Your task to perform on an android device: open app "LinkedIn" (install if not already installed) and enter user name: "dirt@inbox.com" and password: "receptionist" Image 0: 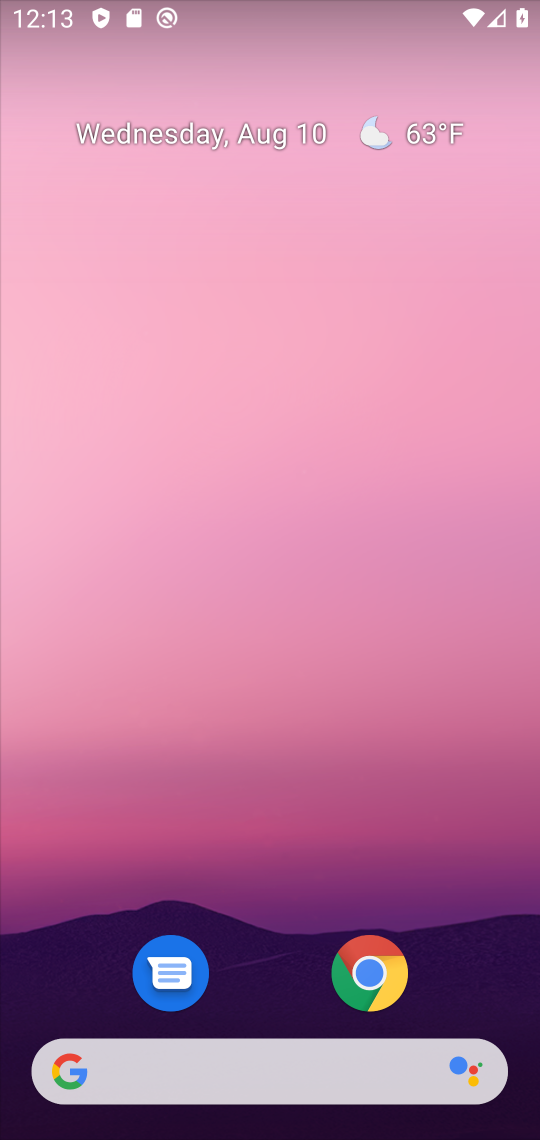
Step 0: drag from (291, 750) to (400, 34)
Your task to perform on an android device: open app "LinkedIn" (install if not already installed) and enter user name: "dirt@inbox.com" and password: "receptionist" Image 1: 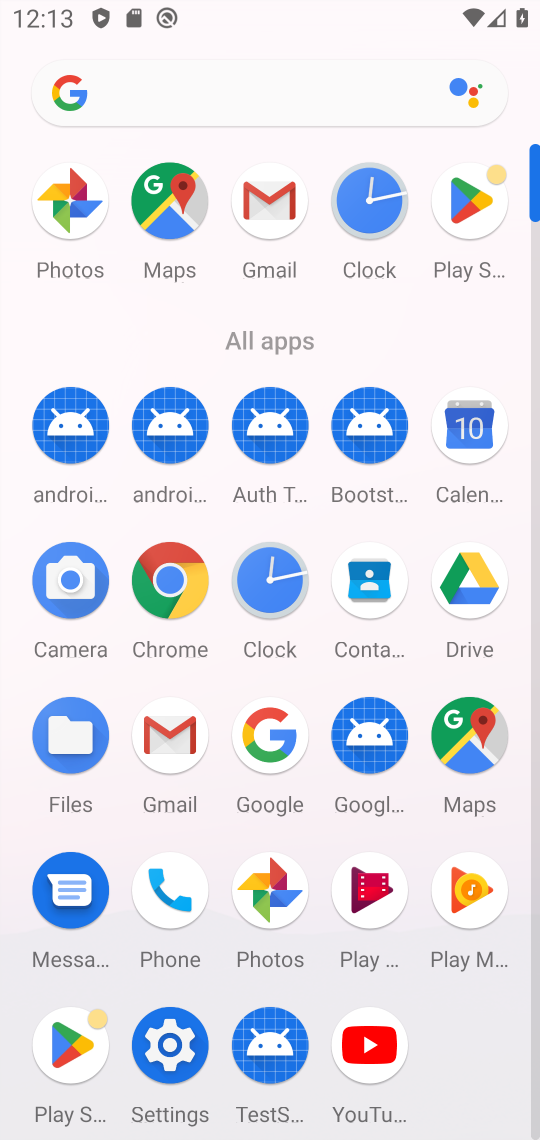
Step 1: click (484, 203)
Your task to perform on an android device: open app "LinkedIn" (install if not already installed) and enter user name: "dirt@inbox.com" and password: "receptionist" Image 2: 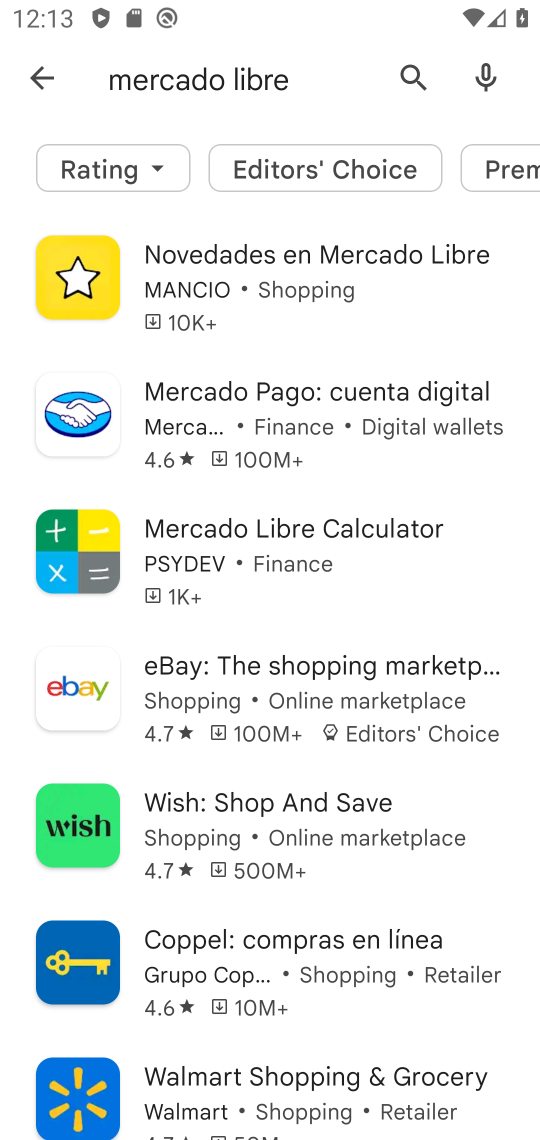
Step 2: click (409, 67)
Your task to perform on an android device: open app "LinkedIn" (install if not already installed) and enter user name: "dirt@inbox.com" and password: "receptionist" Image 3: 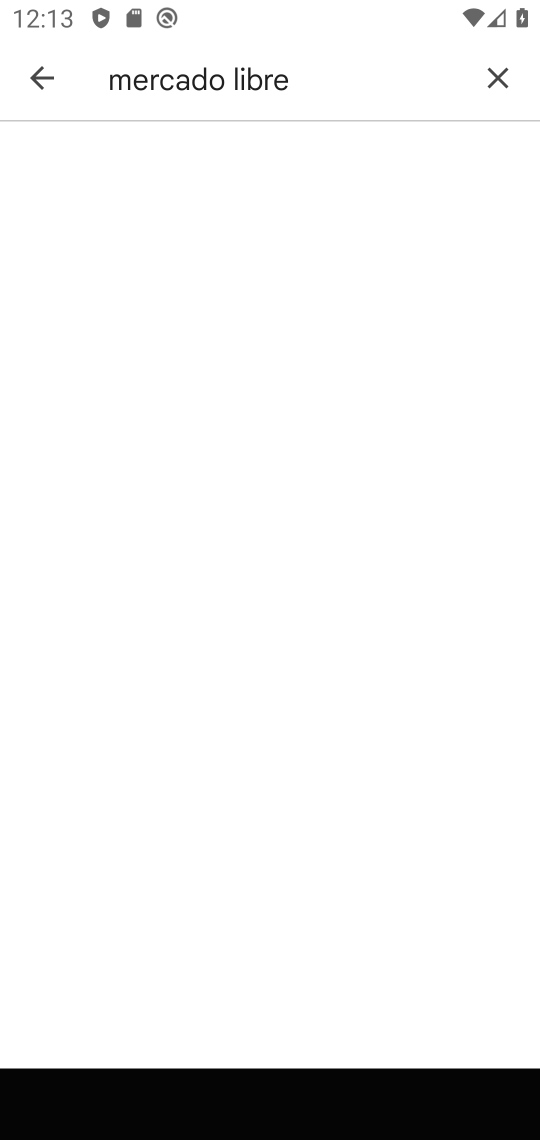
Step 3: click (495, 60)
Your task to perform on an android device: open app "LinkedIn" (install if not already installed) and enter user name: "dirt@inbox.com" and password: "receptionist" Image 4: 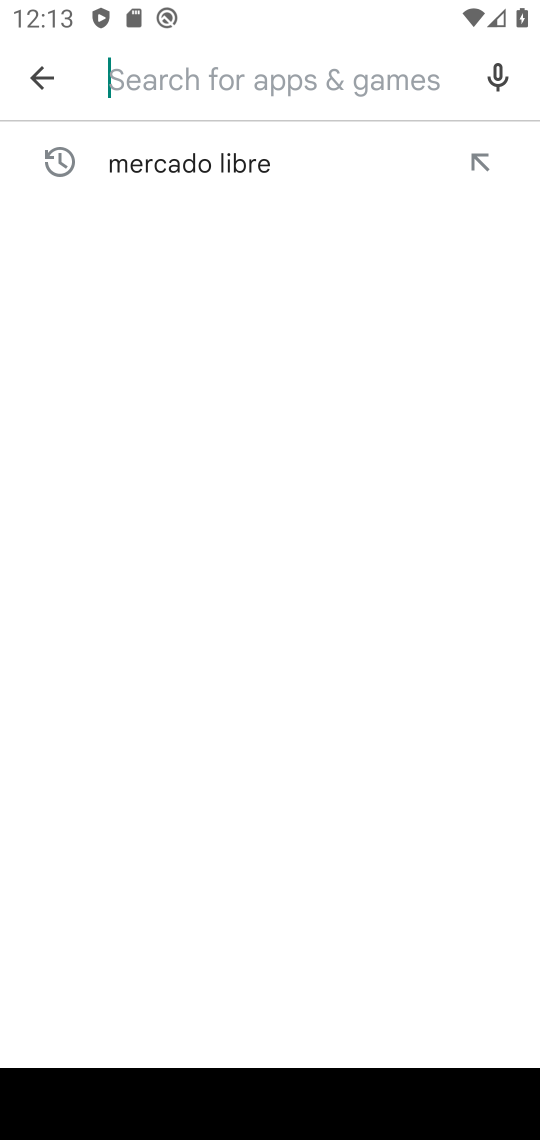
Step 4: click (205, 88)
Your task to perform on an android device: open app "LinkedIn" (install if not already installed) and enter user name: "dirt@inbox.com" and password: "receptionist" Image 5: 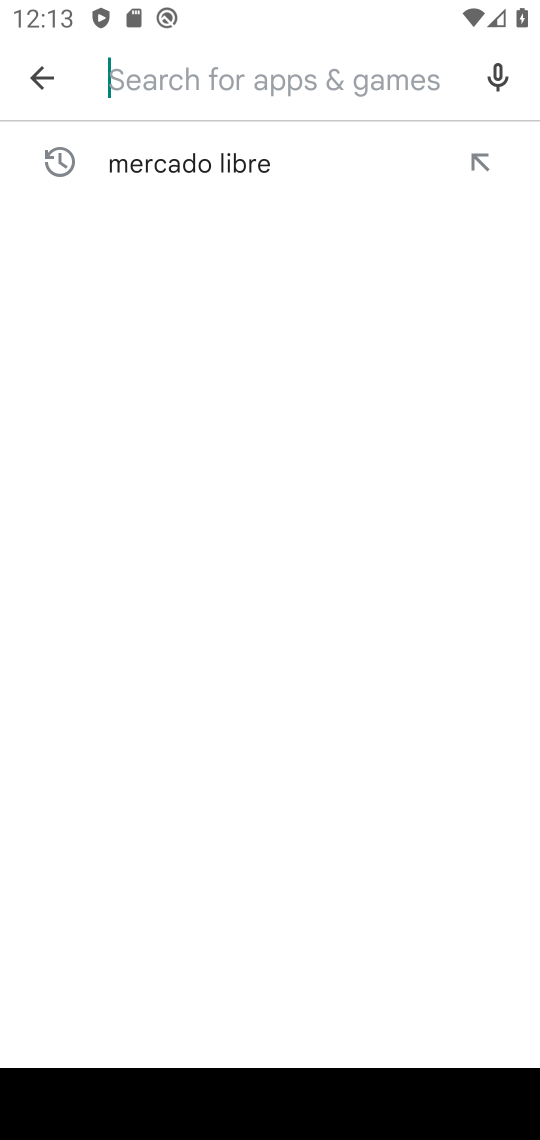
Step 5: type "linkedln"
Your task to perform on an android device: open app "LinkedIn" (install if not already installed) and enter user name: "dirt@inbox.com" and password: "receptionist" Image 6: 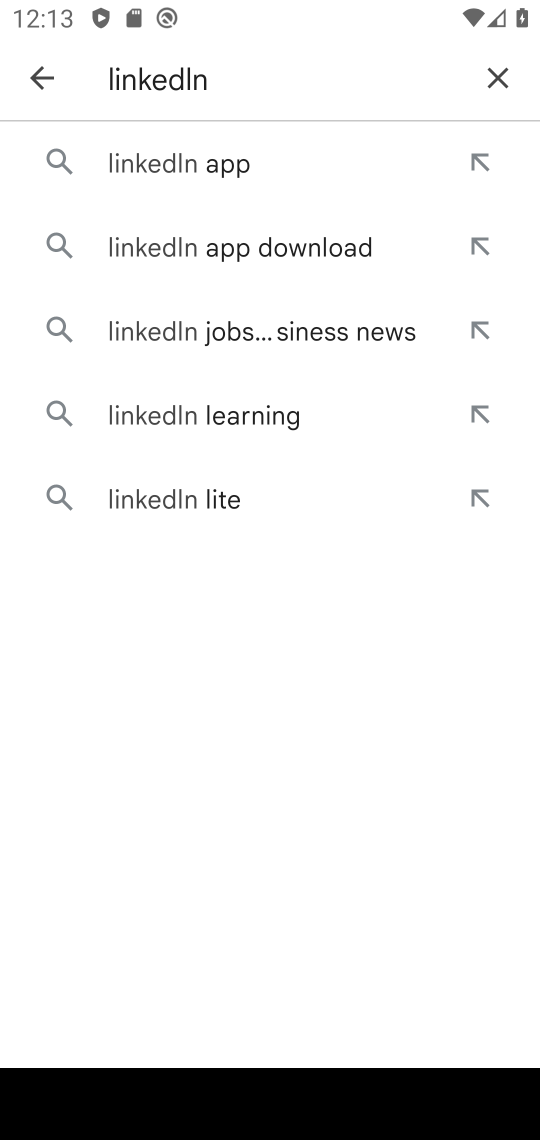
Step 6: click (121, 155)
Your task to perform on an android device: open app "LinkedIn" (install if not already installed) and enter user name: "dirt@inbox.com" and password: "receptionist" Image 7: 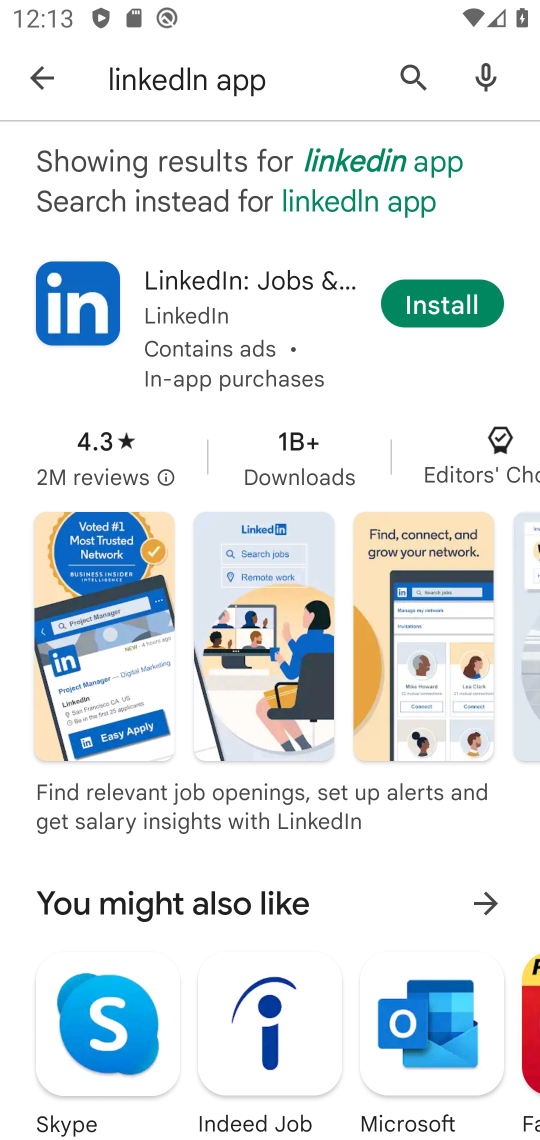
Step 7: click (419, 305)
Your task to perform on an android device: open app "LinkedIn" (install if not already installed) and enter user name: "dirt@inbox.com" and password: "receptionist" Image 8: 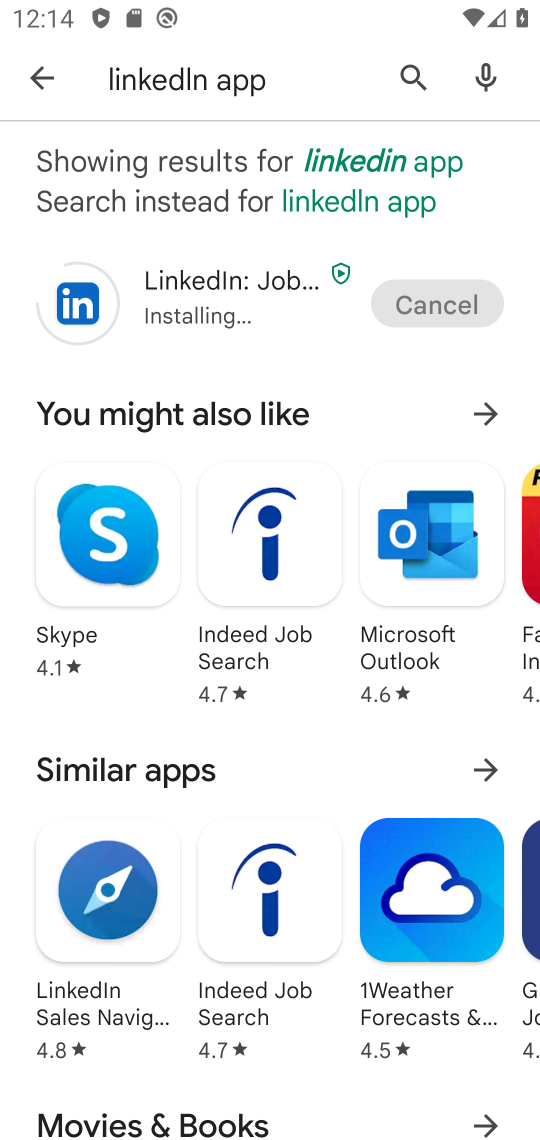
Step 8: press back button
Your task to perform on an android device: open app "LinkedIn" (install if not already installed) and enter user name: "dirt@inbox.com" and password: "receptionist" Image 9: 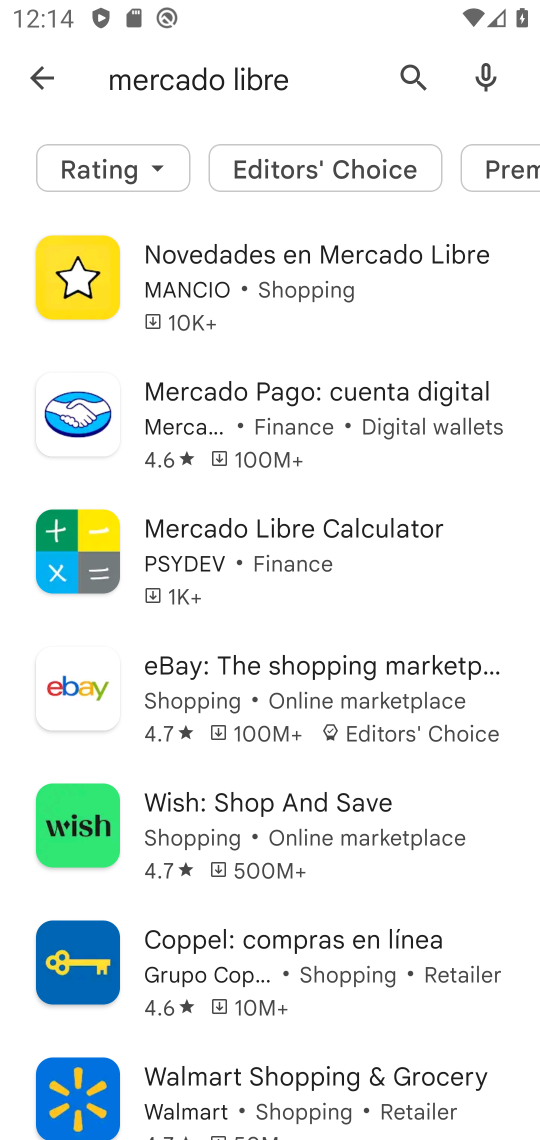
Step 9: click (414, 80)
Your task to perform on an android device: open app "LinkedIn" (install if not already installed) and enter user name: "dirt@inbox.com" and password: "receptionist" Image 10: 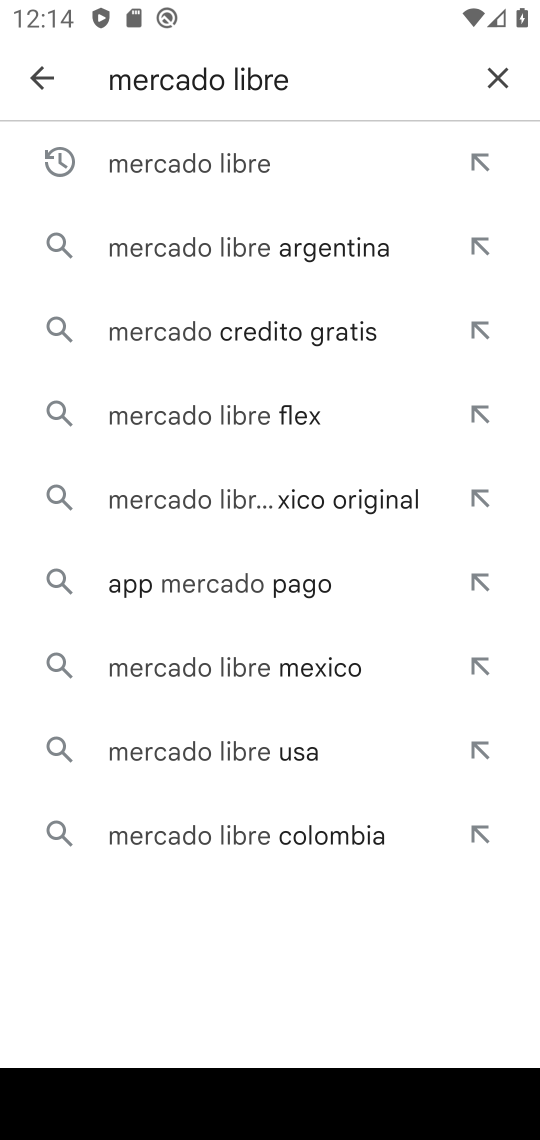
Step 10: click (508, 76)
Your task to perform on an android device: open app "LinkedIn" (install if not already installed) and enter user name: "dirt@inbox.com" and password: "receptionist" Image 11: 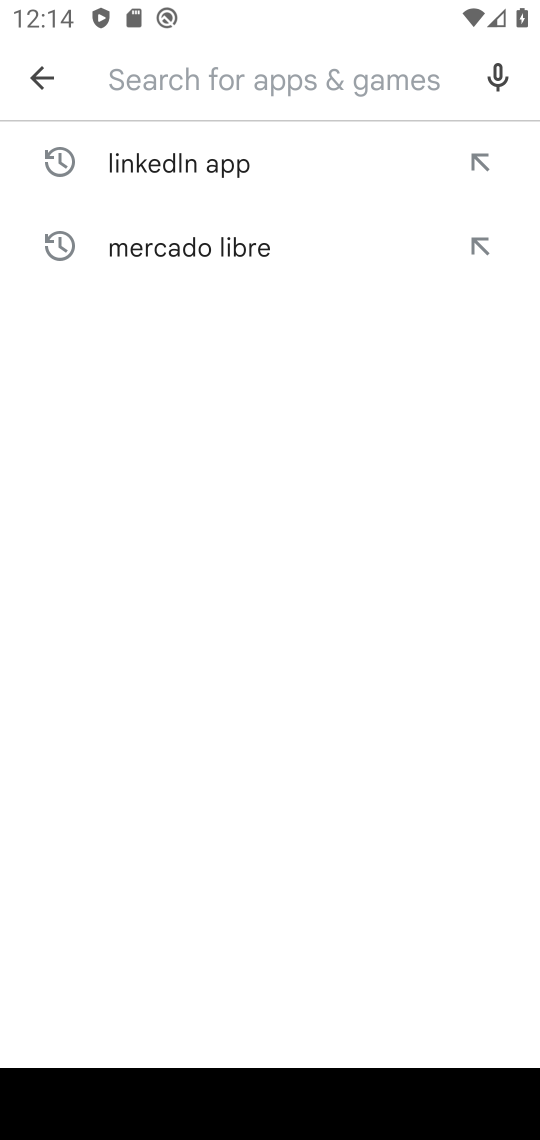
Step 11: click (210, 161)
Your task to perform on an android device: open app "LinkedIn" (install if not already installed) and enter user name: "dirt@inbox.com" and password: "receptionist" Image 12: 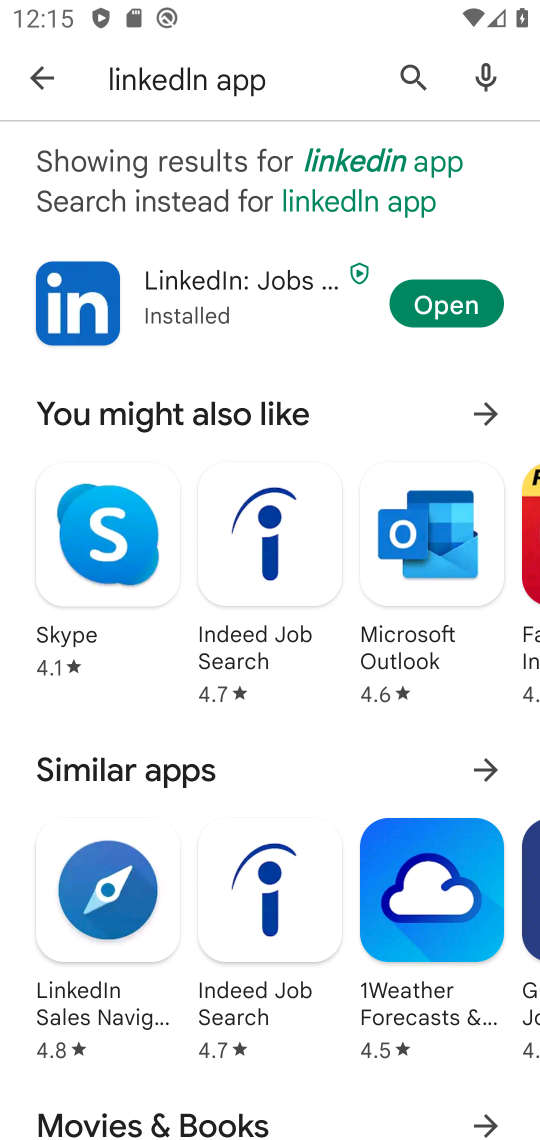
Step 12: click (450, 303)
Your task to perform on an android device: open app "LinkedIn" (install if not already installed) and enter user name: "dirt@inbox.com" and password: "receptionist" Image 13: 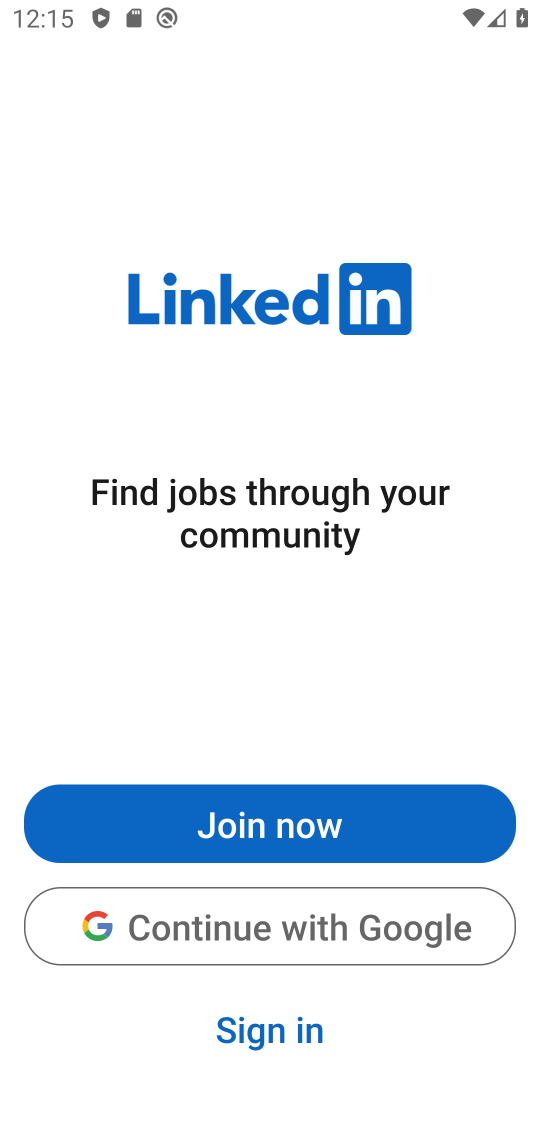
Step 13: click (256, 1045)
Your task to perform on an android device: open app "LinkedIn" (install if not already installed) and enter user name: "dirt@inbox.com" and password: "receptionist" Image 14: 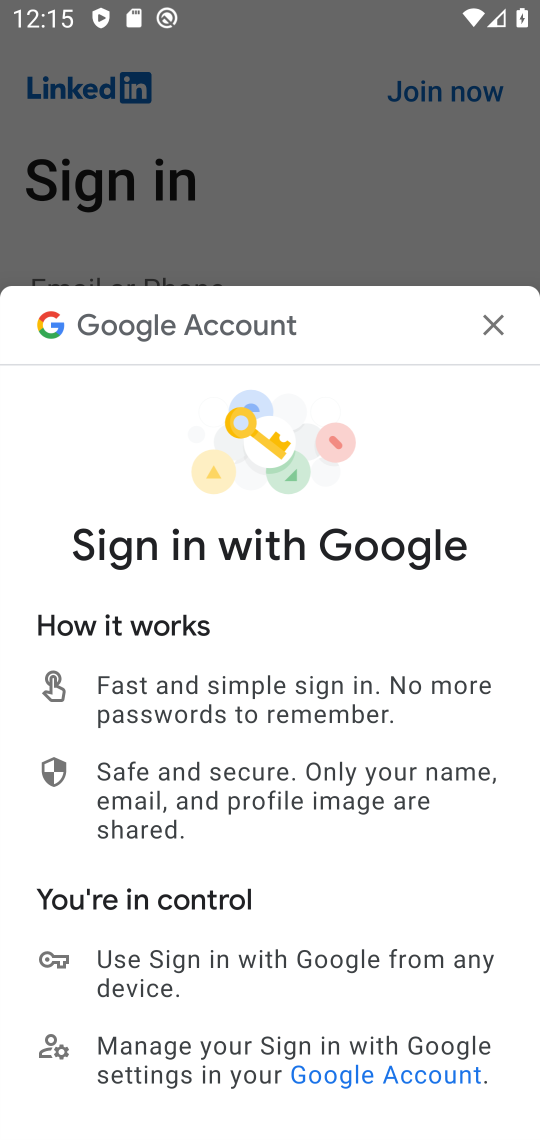
Step 14: click (498, 306)
Your task to perform on an android device: open app "LinkedIn" (install if not already installed) and enter user name: "dirt@inbox.com" and password: "receptionist" Image 15: 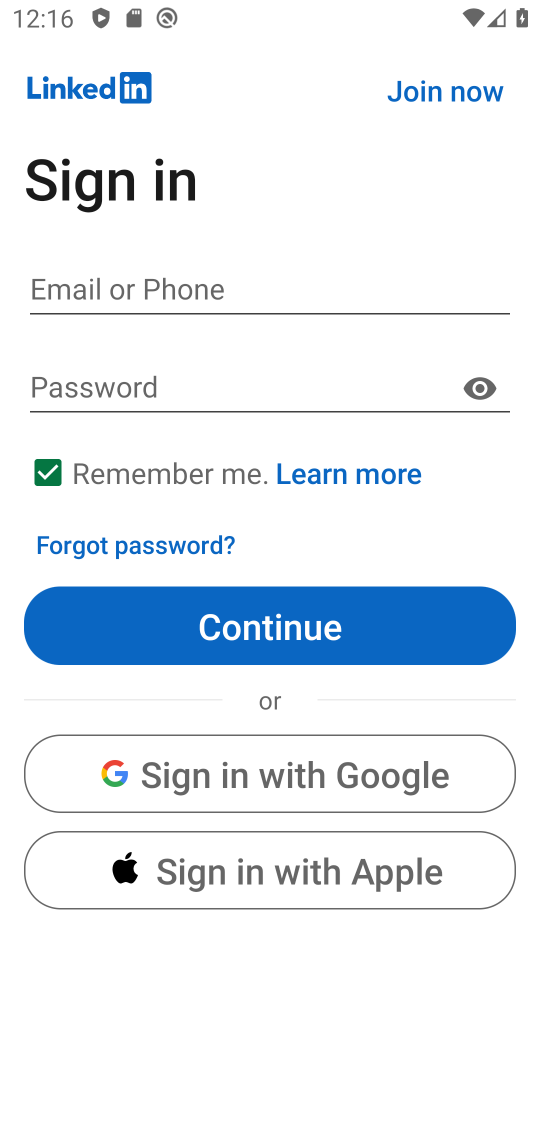
Step 15: click (202, 253)
Your task to perform on an android device: open app "LinkedIn" (install if not already installed) and enter user name: "dirt@inbox.com" and password: "receptionist" Image 16: 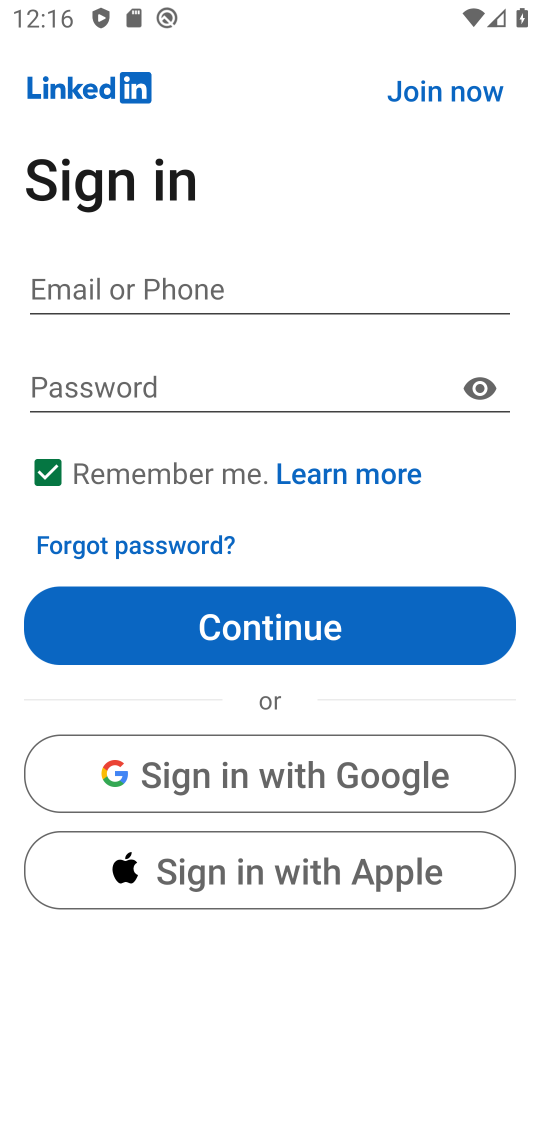
Step 16: click (66, 294)
Your task to perform on an android device: open app "LinkedIn" (install if not already installed) and enter user name: "dirt@inbox.com" and password: "receptionist" Image 17: 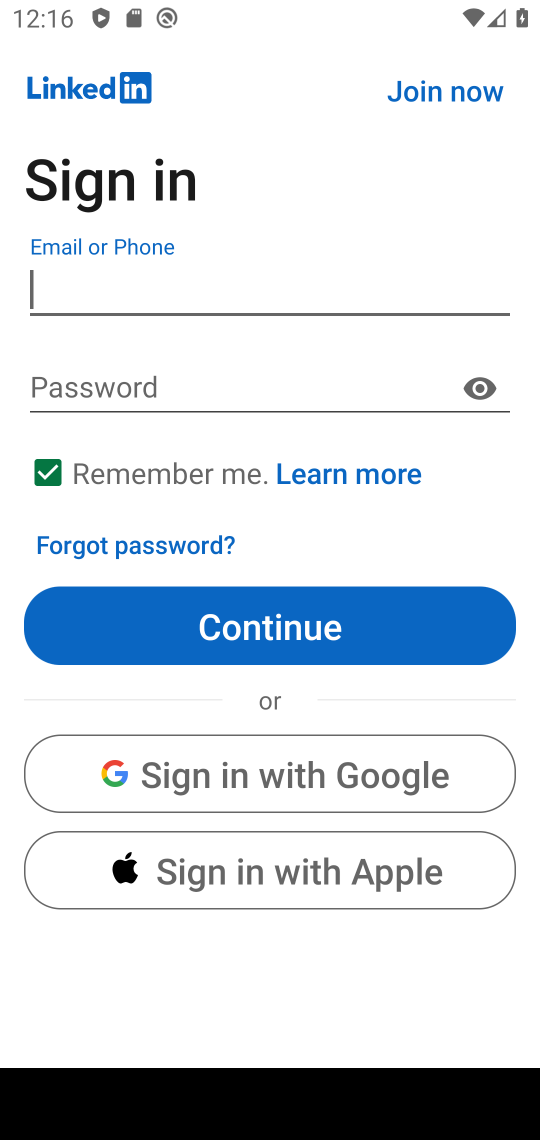
Step 17: type "dirt@inbox.com"
Your task to perform on an android device: open app "LinkedIn" (install if not already installed) and enter user name: "dirt@inbox.com" and password: "receptionist" Image 18: 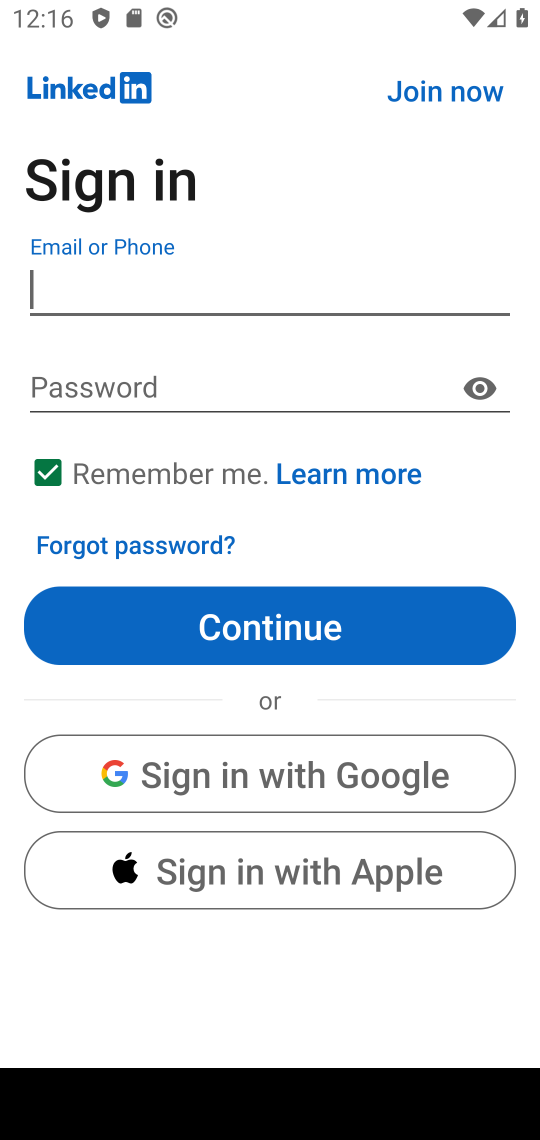
Step 18: click (104, 358)
Your task to perform on an android device: open app "LinkedIn" (install if not already installed) and enter user name: "dirt@inbox.com" and password: "receptionist" Image 19: 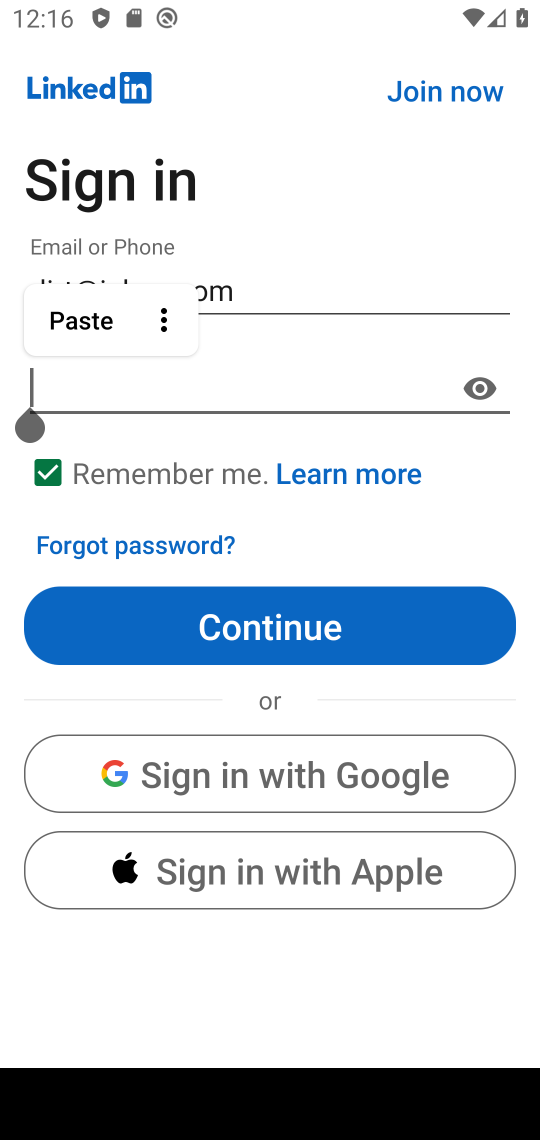
Step 19: click (161, 368)
Your task to perform on an android device: open app "LinkedIn" (install if not already installed) and enter user name: "dirt@inbox.com" and password: "receptionist" Image 20: 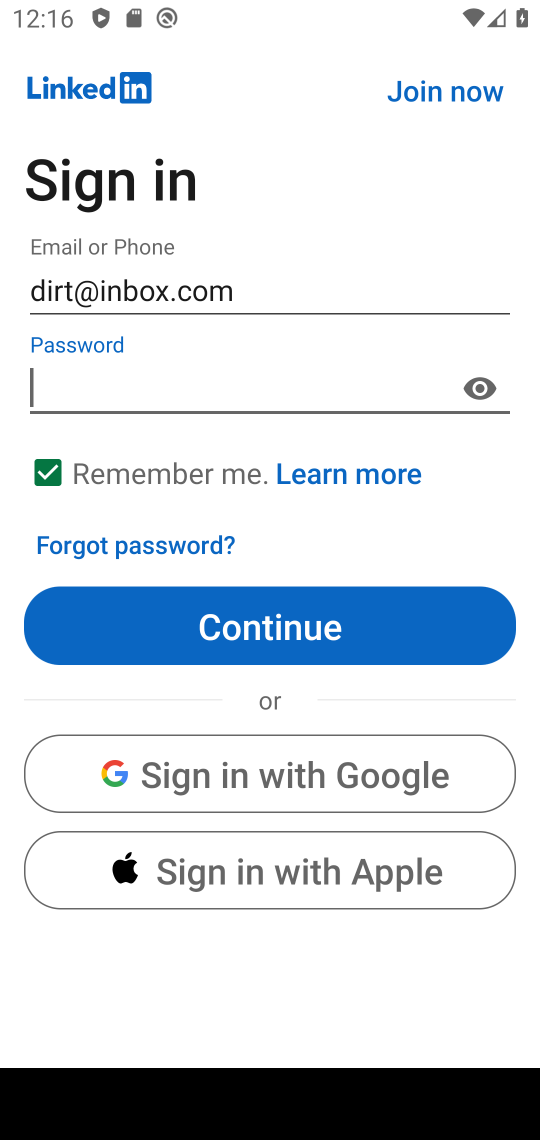
Step 20: click (233, 378)
Your task to perform on an android device: open app "LinkedIn" (install if not already installed) and enter user name: "dirt@inbox.com" and password: "receptionist" Image 21: 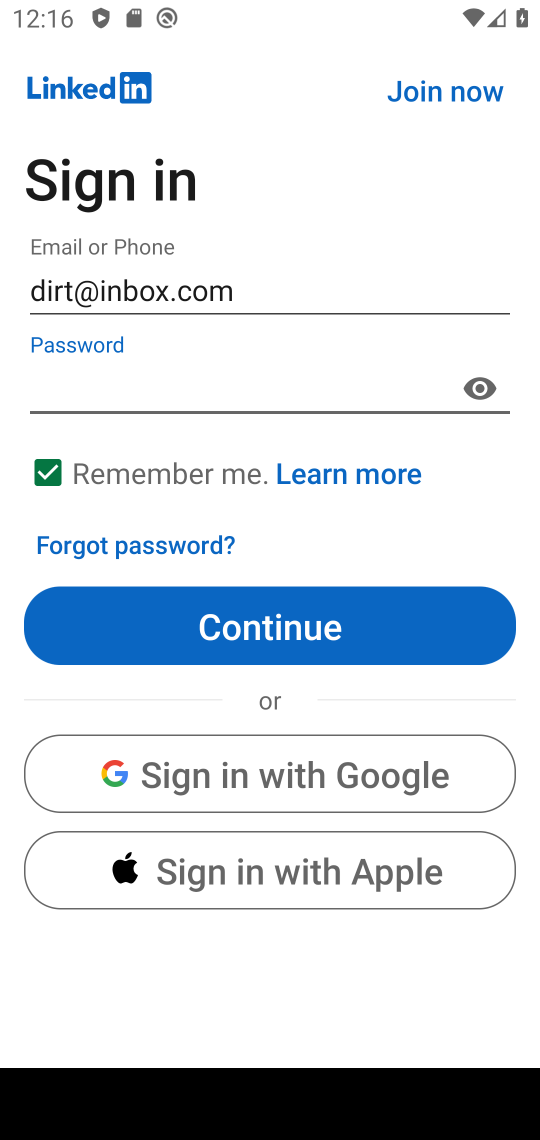
Step 21: type "receptionist"
Your task to perform on an android device: open app "LinkedIn" (install if not already installed) and enter user name: "dirt@inbox.com" and password: "receptionist" Image 22: 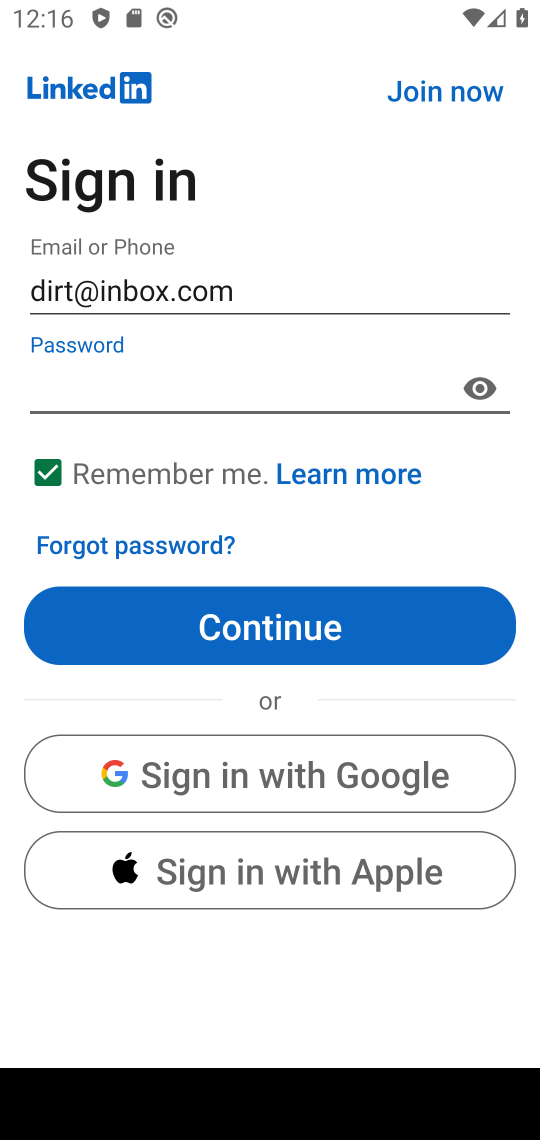
Step 22: click (242, 991)
Your task to perform on an android device: open app "LinkedIn" (install if not already installed) and enter user name: "dirt@inbox.com" and password: "receptionist" Image 23: 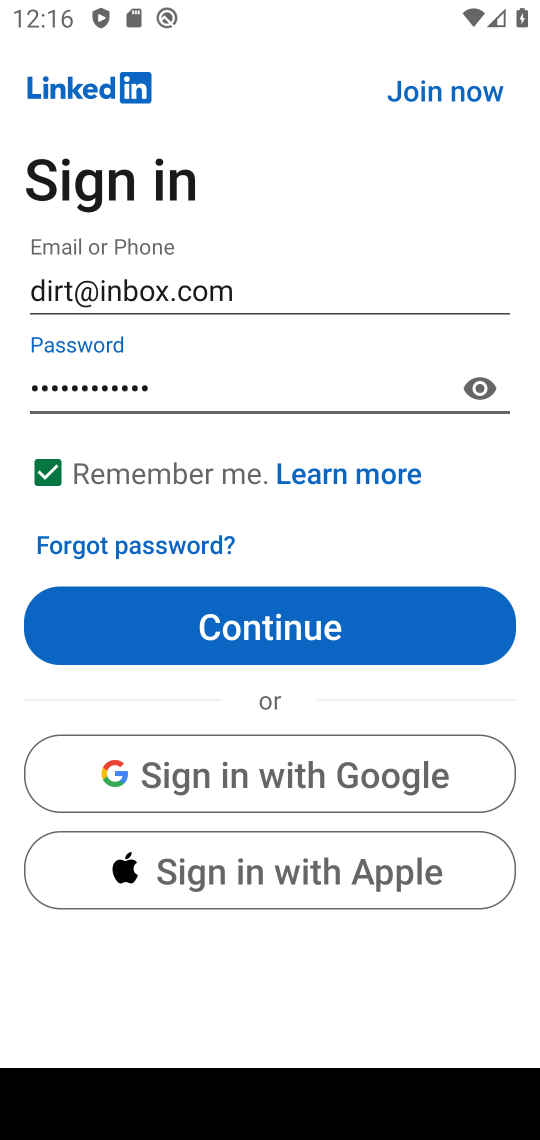
Step 23: task complete